Your task to perform on an android device: set an alarm Image 0: 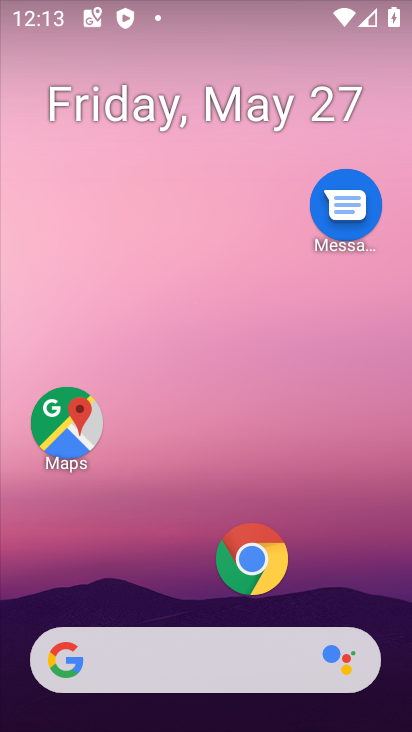
Step 0: drag from (151, 606) to (181, 60)
Your task to perform on an android device: set an alarm Image 1: 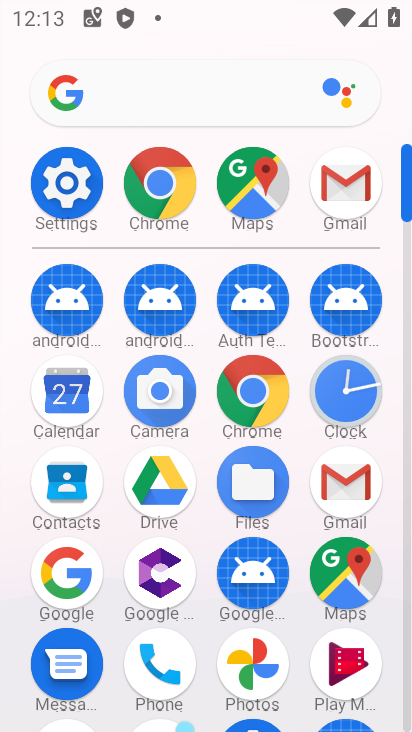
Step 1: click (359, 397)
Your task to perform on an android device: set an alarm Image 2: 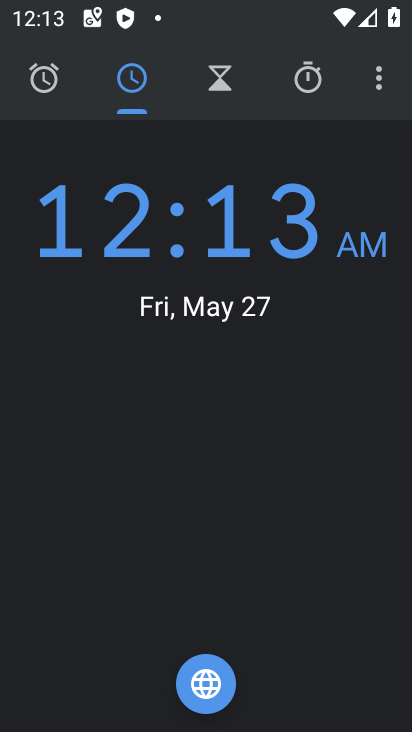
Step 2: click (43, 89)
Your task to perform on an android device: set an alarm Image 3: 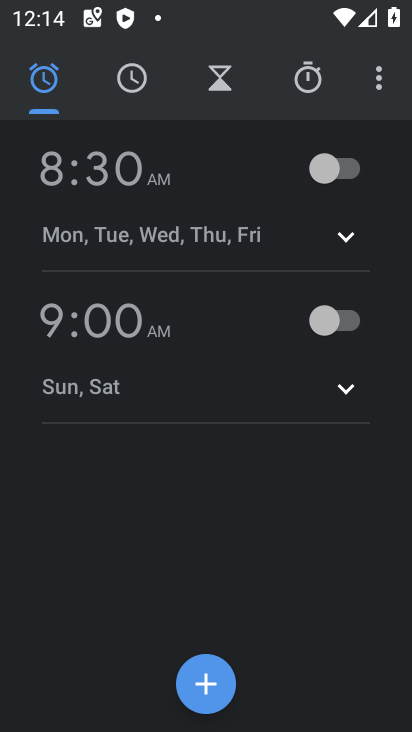
Step 3: click (208, 701)
Your task to perform on an android device: set an alarm Image 4: 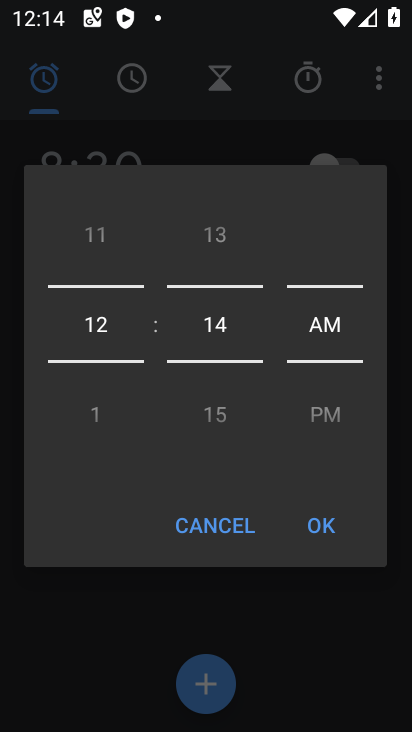
Step 4: click (307, 526)
Your task to perform on an android device: set an alarm Image 5: 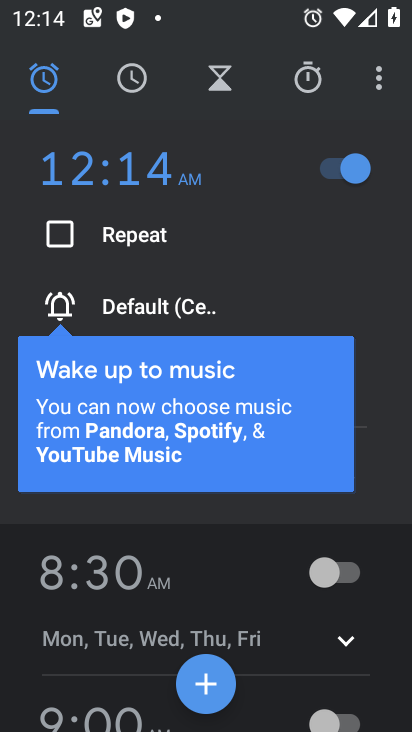
Step 5: task complete